Your task to perform on an android device: Go to CNN.com Image 0: 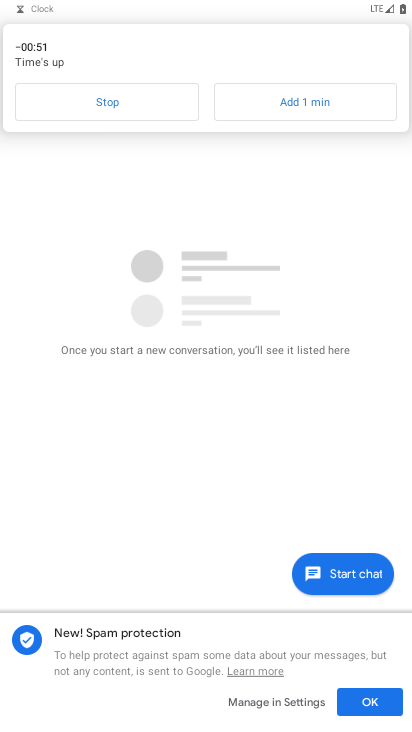
Step 0: press home button
Your task to perform on an android device: Go to CNN.com Image 1: 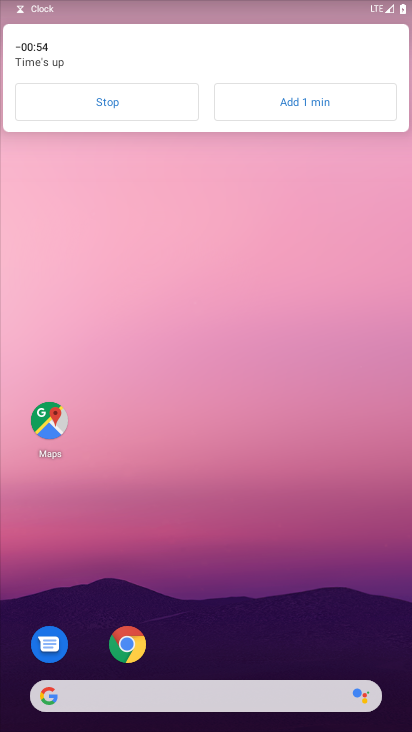
Step 1: click (151, 644)
Your task to perform on an android device: Go to CNN.com Image 2: 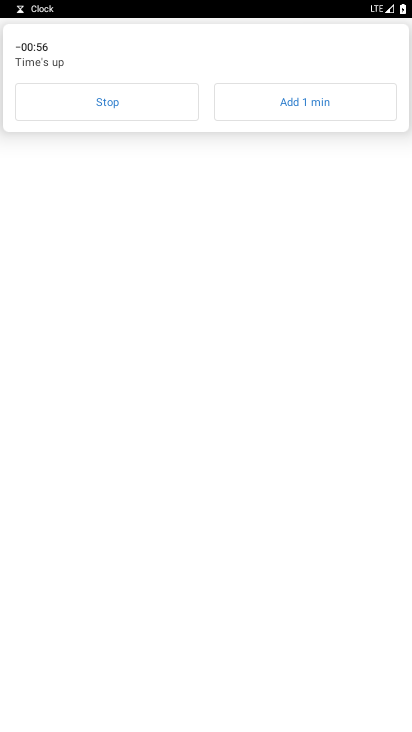
Step 2: click (157, 99)
Your task to perform on an android device: Go to CNN.com Image 3: 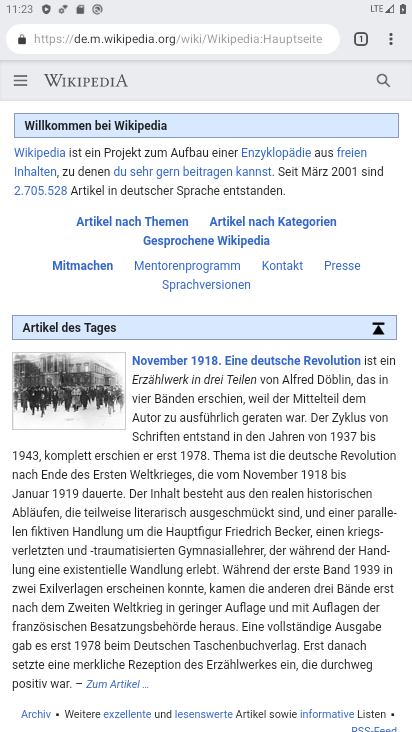
Step 3: click (294, 37)
Your task to perform on an android device: Go to CNN.com Image 4: 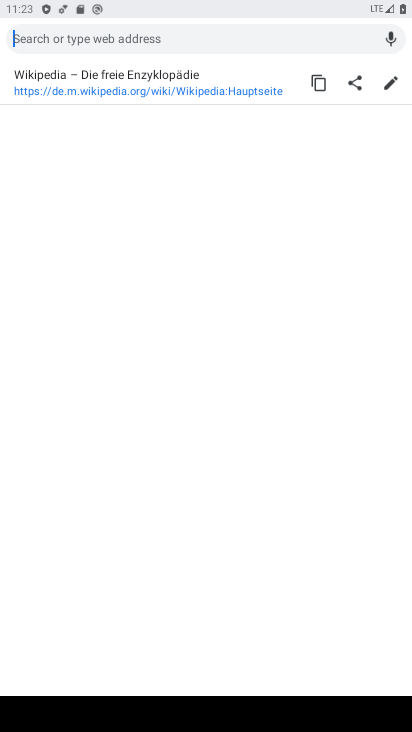
Step 4: type "CNN.com"
Your task to perform on an android device: Go to CNN.com Image 5: 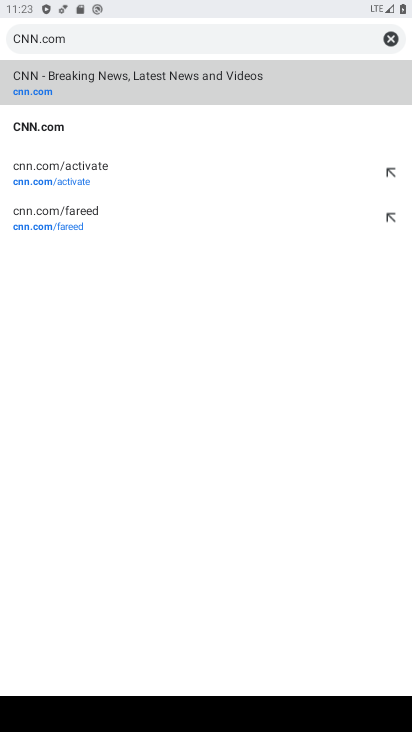
Step 5: click (39, 123)
Your task to perform on an android device: Go to CNN.com Image 6: 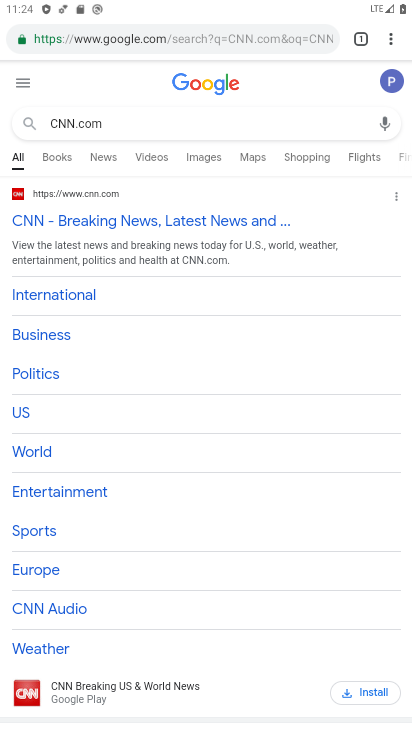
Step 6: click (65, 225)
Your task to perform on an android device: Go to CNN.com Image 7: 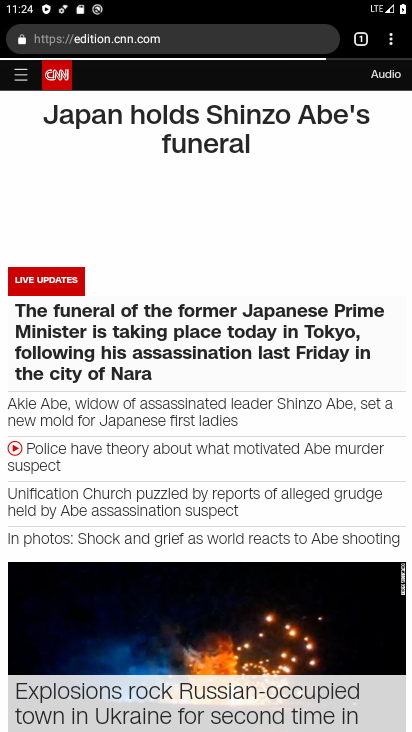
Step 7: task complete